Your task to perform on an android device: Is it going to rain this weekend? Image 0: 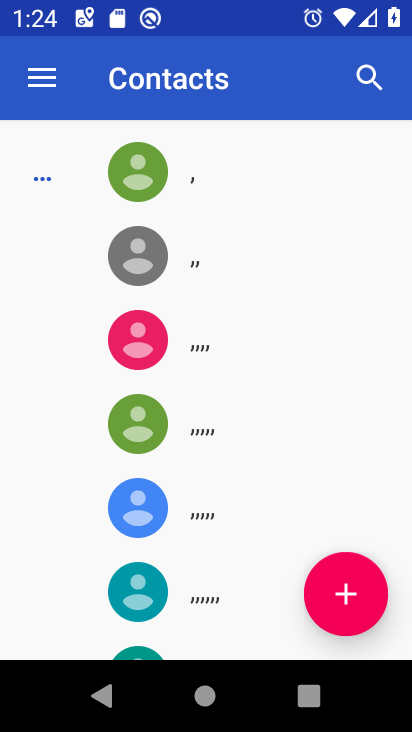
Step 0: press home button
Your task to perform on an android device: Is it going to rain this weekend? Image 1: 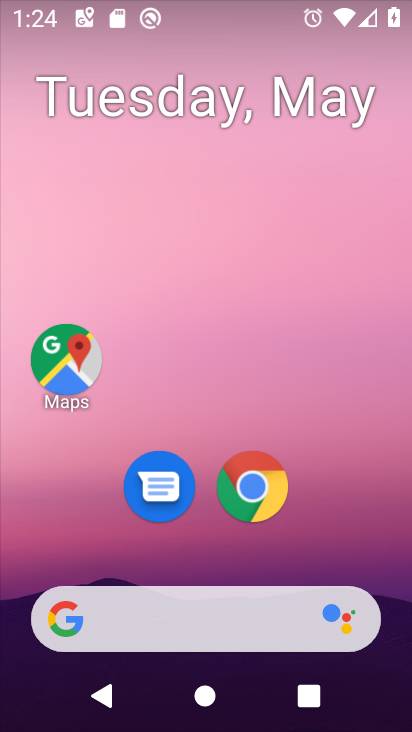
Step 1: click (176, 616)
Your task to perform on an android device: Is it going to rain this weekend? Image 2: 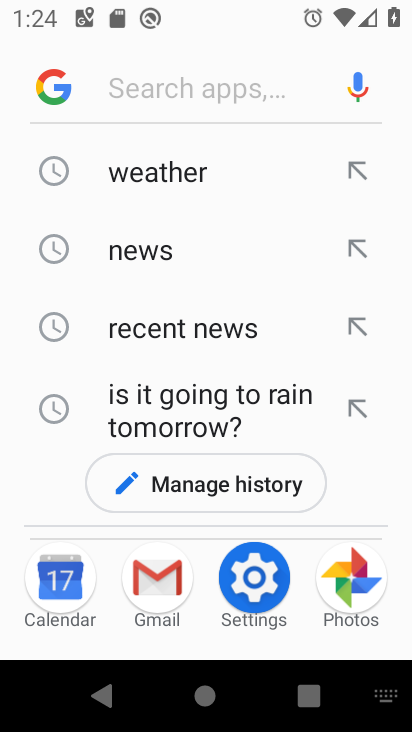
Step 2: click (161, 172)
Your task to perform on an android device: Is it going to rain this weekend? Image 3: 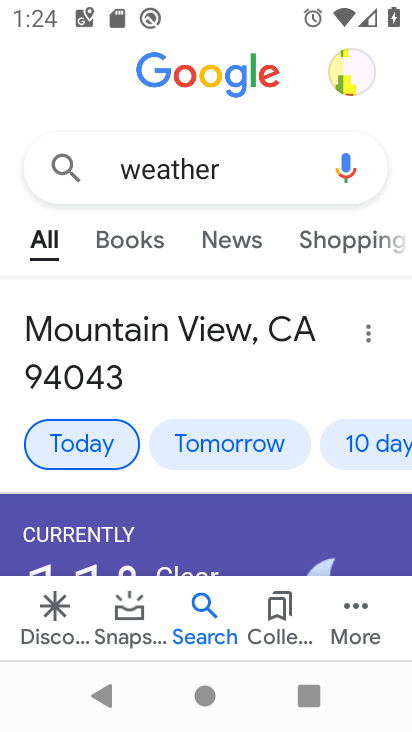
Step 3: task complete